Your task to perform on an android device: Show me recent news Image 0: 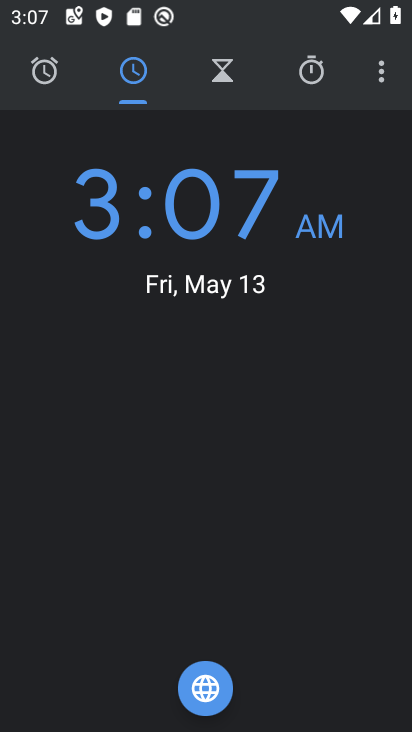
Step 0: press back button
Your task to perform on an android device: Show me recent news Image 1: 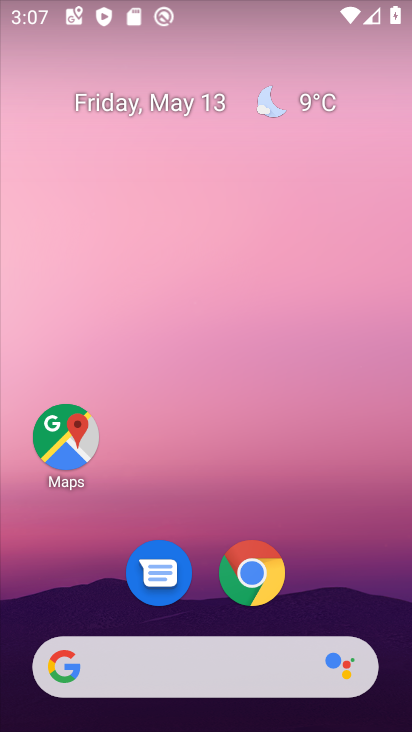
Step 1: click (157, 666)
Your task to perform on an android device: Show me recent news Image 2: 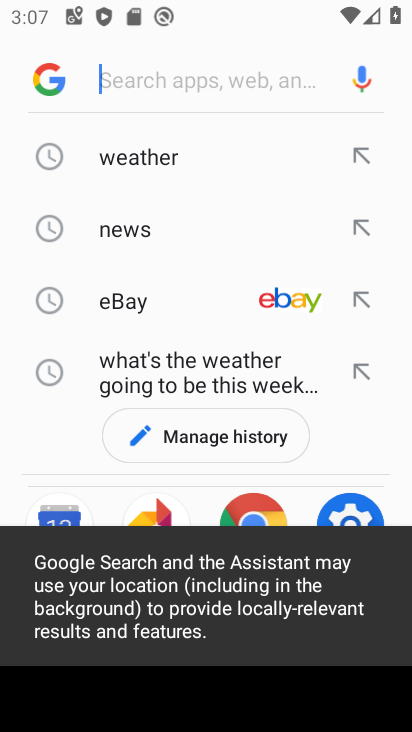
Step 2: click (134, 226)
Your task to perform on an android device: Show me recent news Image 3: 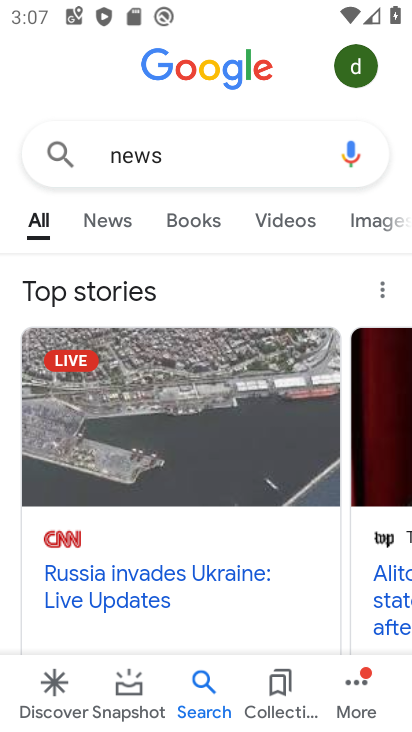
Step 3: task complete